Your task to perform on an android device: Clear the shopping cart on costco. Add "usb-c" to the cart on costco Image 0: 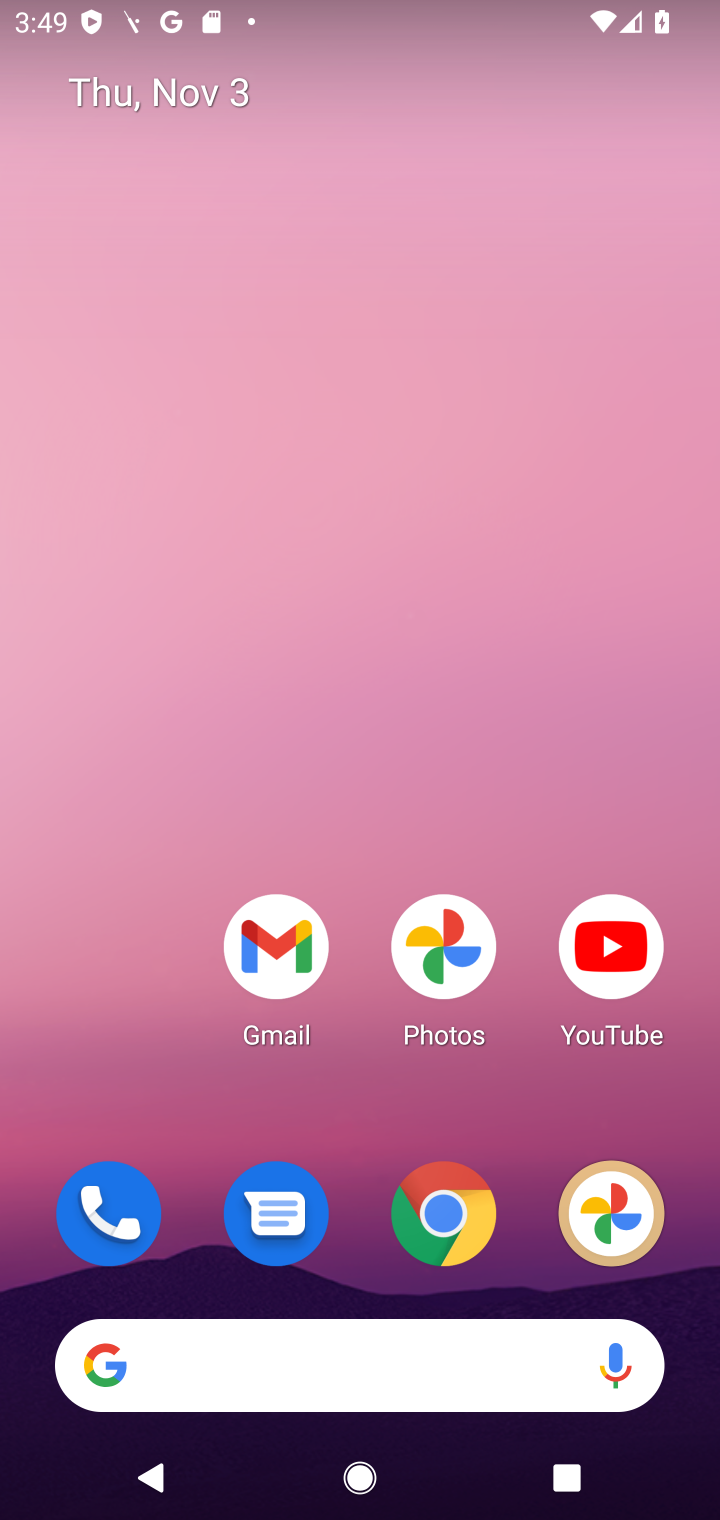
Step 0: click (427, 1230)
Your task to perform on an android device: Clear the shopping cart on costco. Add "usb-c" to the cart on costco Image 1: 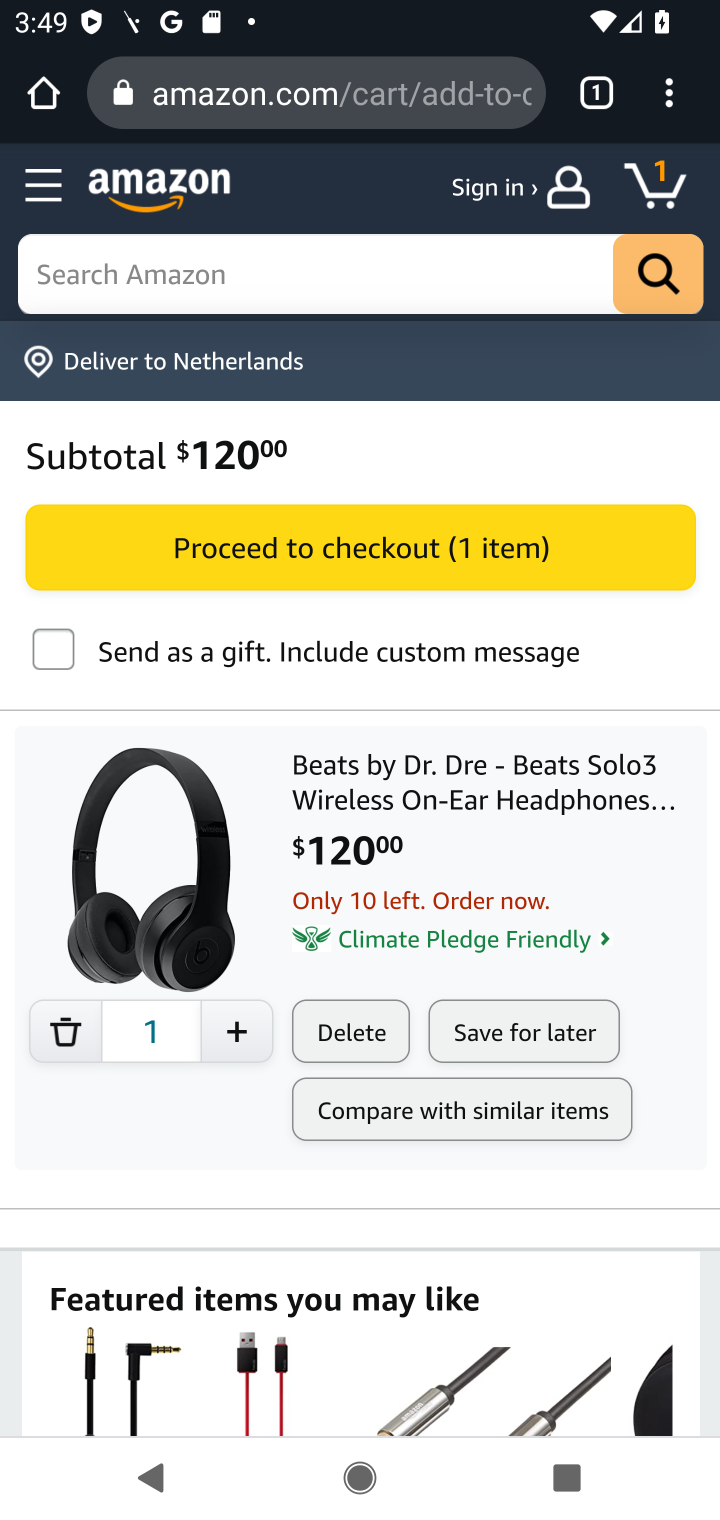
Step 1: click (279, 110)
Your task to perform on an android device: Clear the shopping cart on costco. Add "usb-c" to the cart on costco Image 2: 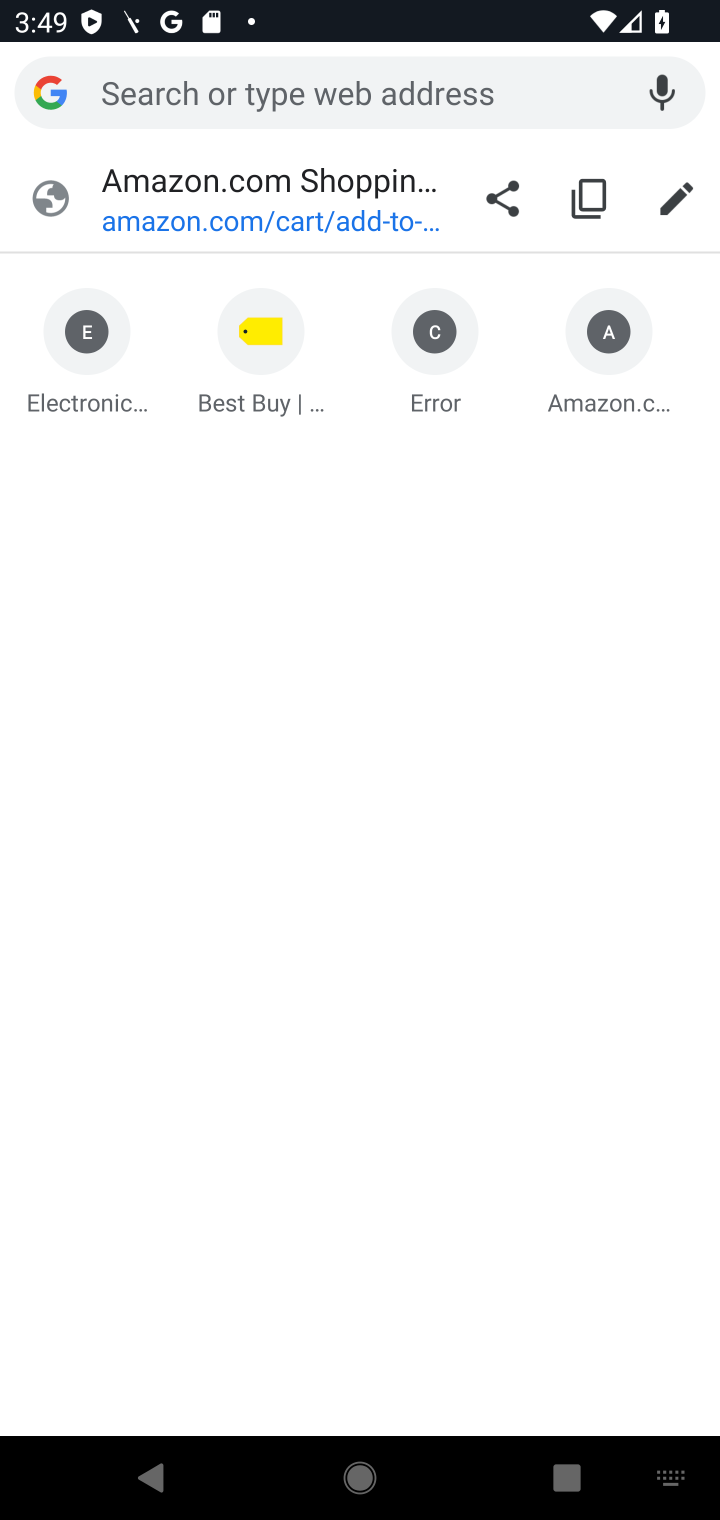
Step 2: type "costco.com"
Your task to perform on an android device: Clear the shopping cart on costco. Add "usb-c" to the cart on costco Image 3: 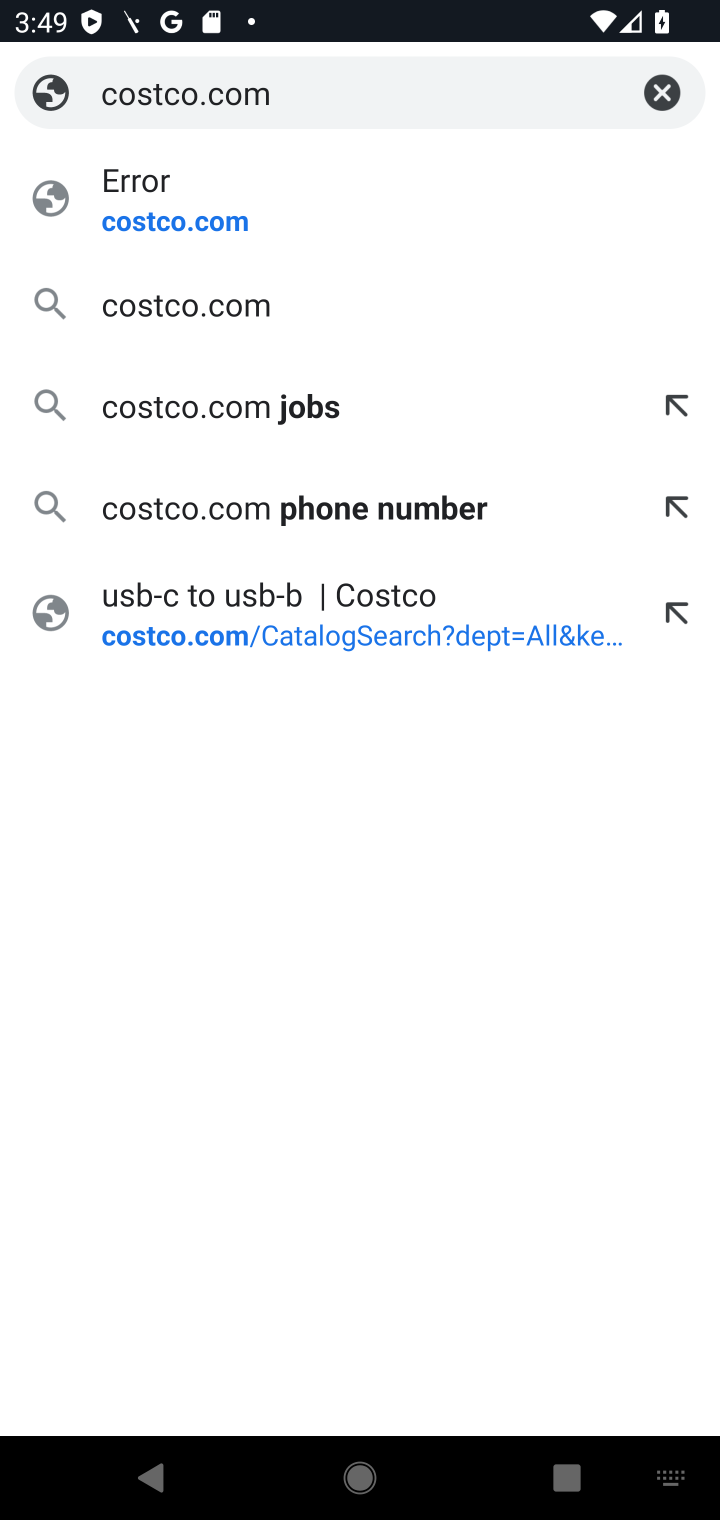
Step 3: click (168, 300)
Your task to perform on an android device: Clear the shopping cart on costco. Add "usb-c" to the cart on costco Image 4: 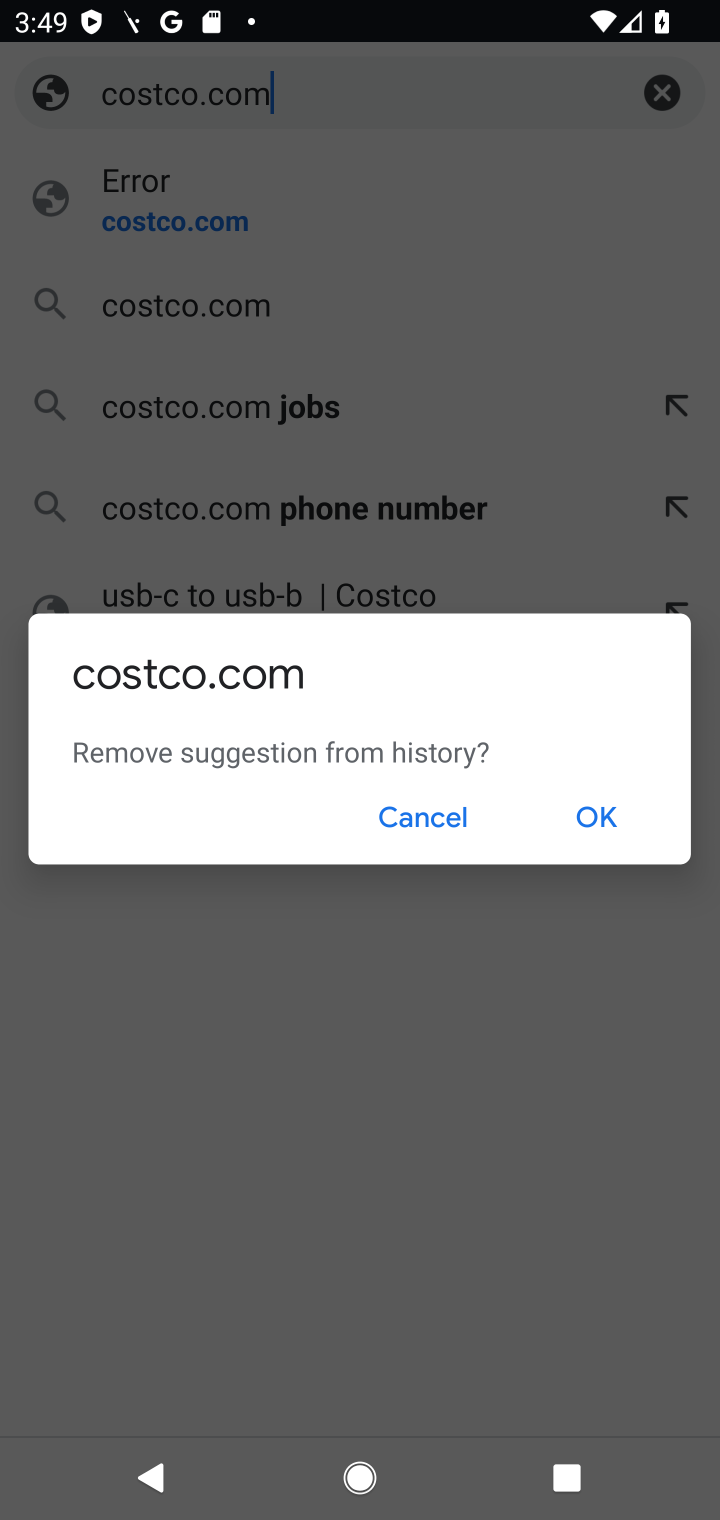
Step 4: click (445, 824)
Your task to perform on an android device: Clear the shopping cart on costco. Add "usb-c" to the cart on costco Image 5: 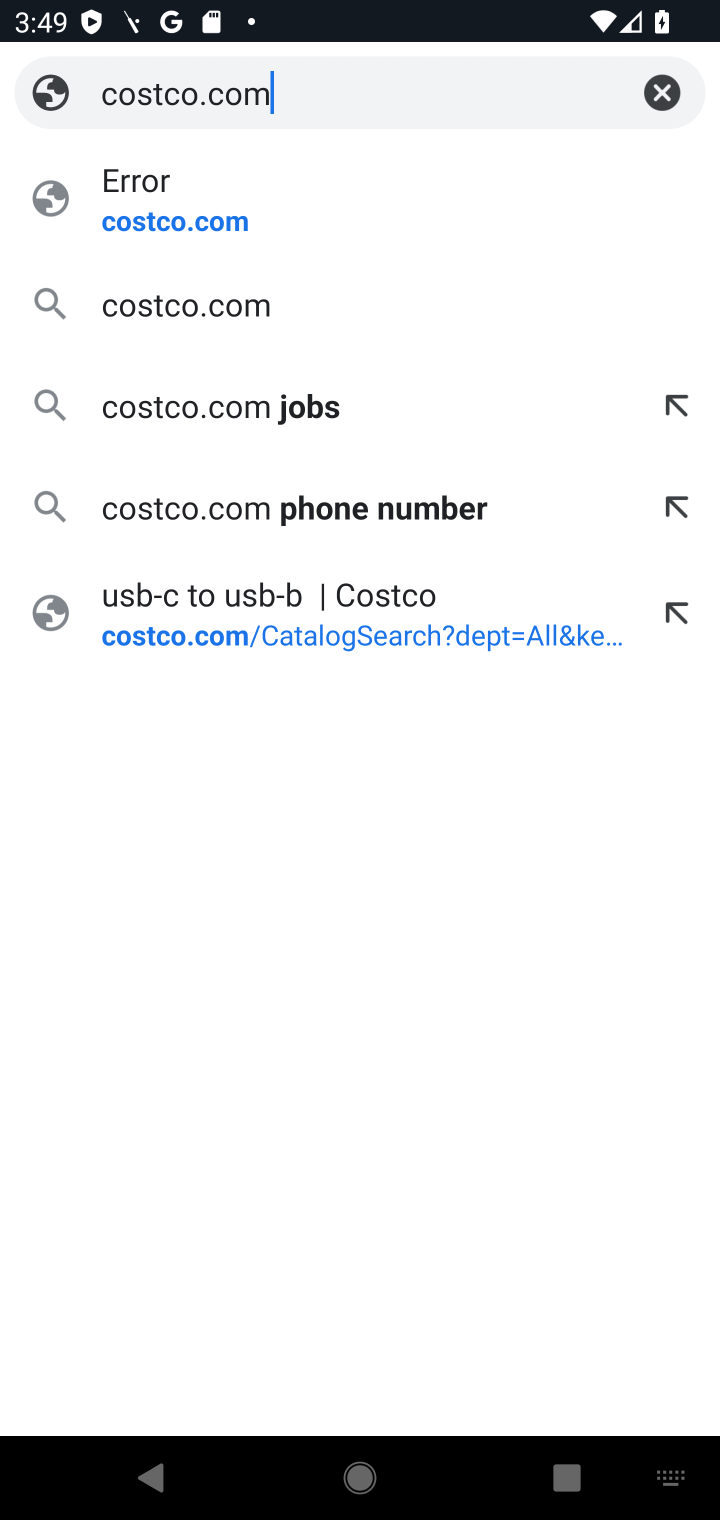
Step 5: click (177, 317)
Your task to perform on an android device: Clear the shopping cart on costco. Add "usb-c" to the cart on costco Image 6: 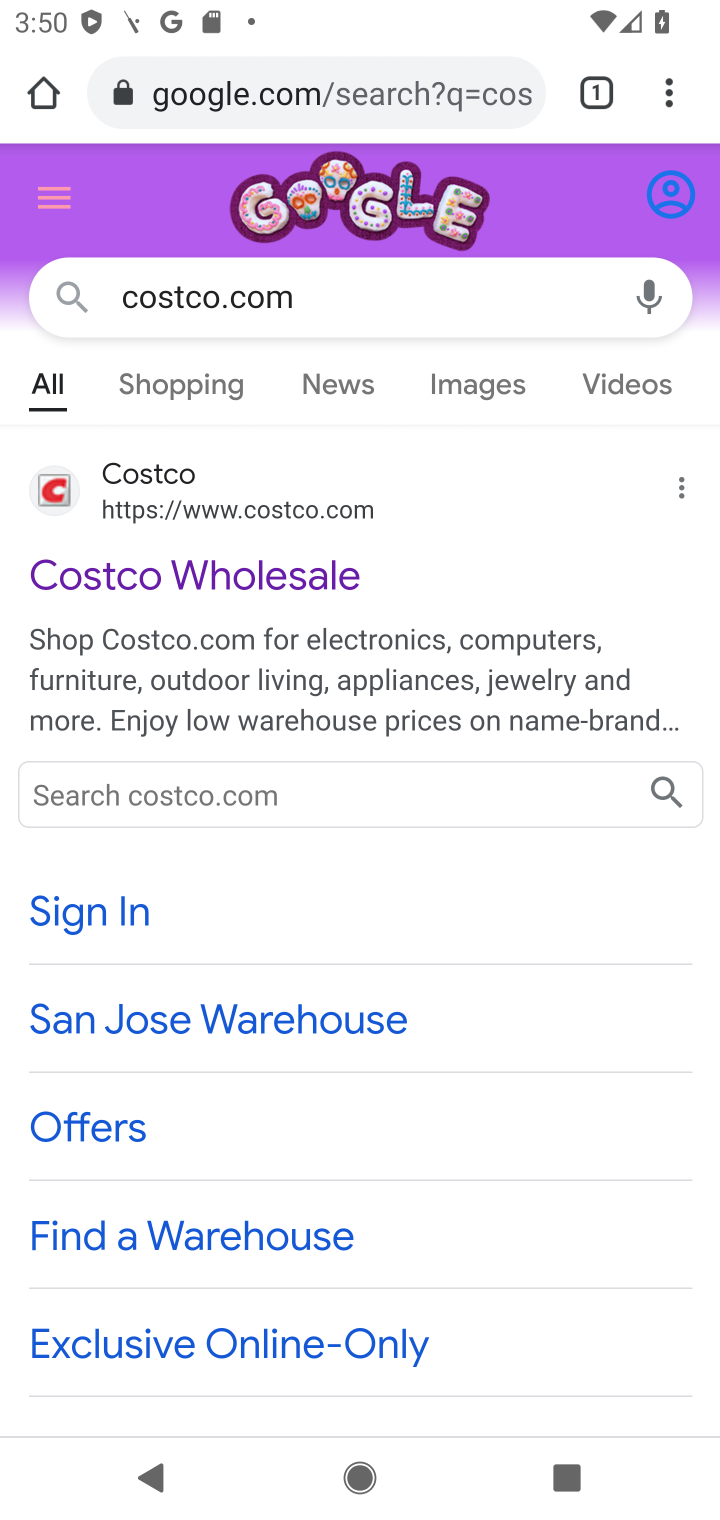
Step 6: click (125, 592)
Your task to perform on an android device: Clear the shopping cart on costco. Add "usb-c" to the cart on costco Image 7: 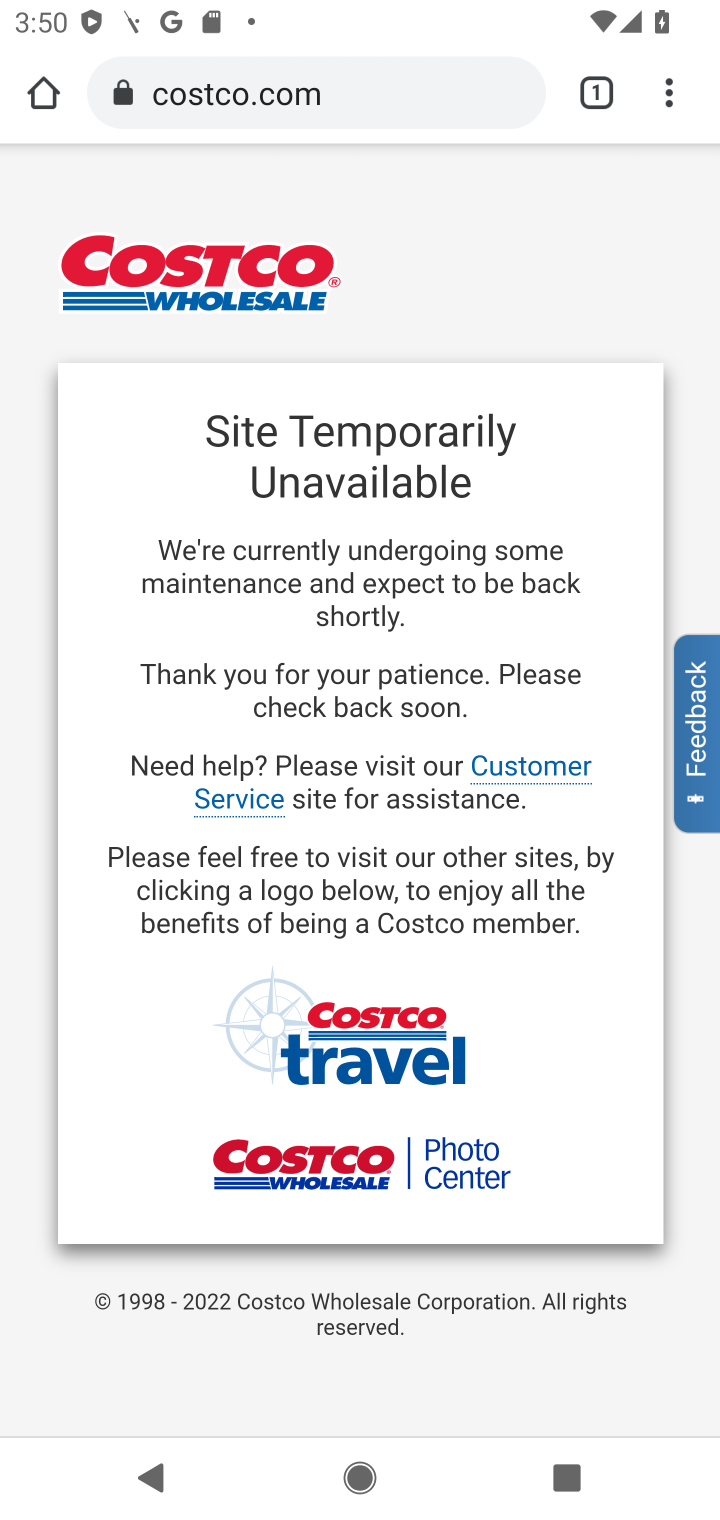
Step 7: click (543, 312)
Your task to perform on an android device: Clear the shopping cart on costco. Add "usb-c" to the cart on costco Image 8: 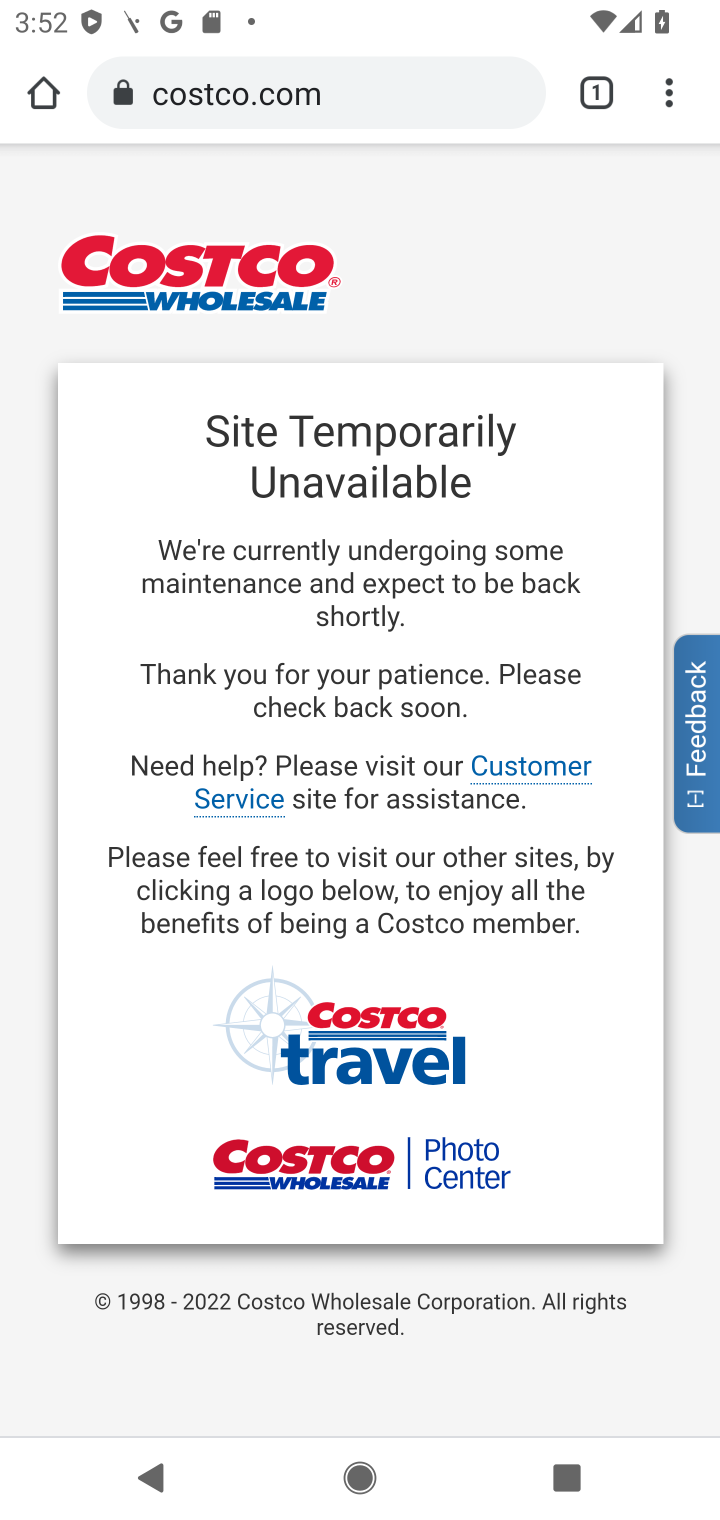
Step 8: task complete